Your task to perform on an android device: Open network settings Image 0: 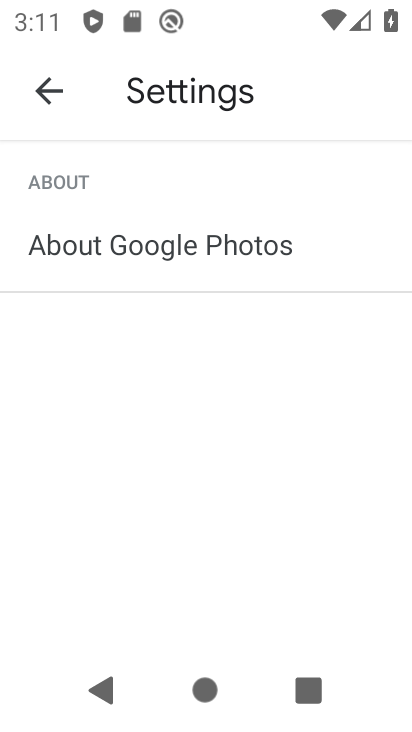
Step 0: press back button
Your task to perform on an android device: Open network settings Image 1: 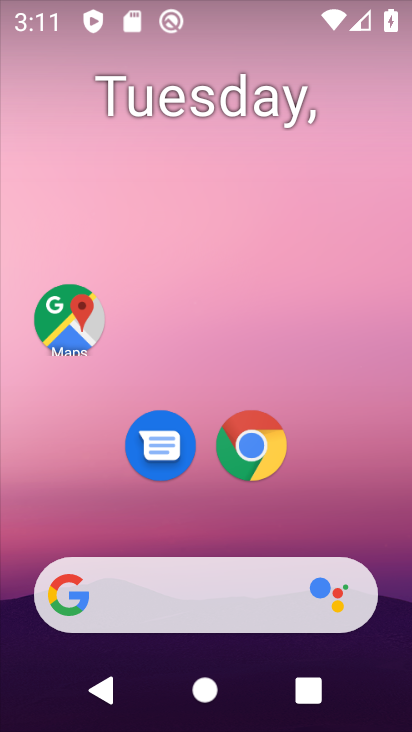
Step 1: drag from (298, 516) to (346, 93)
Your task to perform on an android device: Open network settings Image 2: 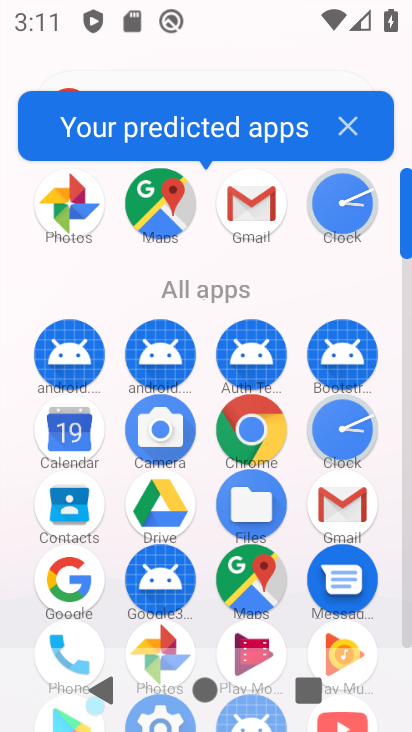
Step 2: drag from (300, 598) to (318, 224)
Your task to perform on an android device: Open network settings Image 3: 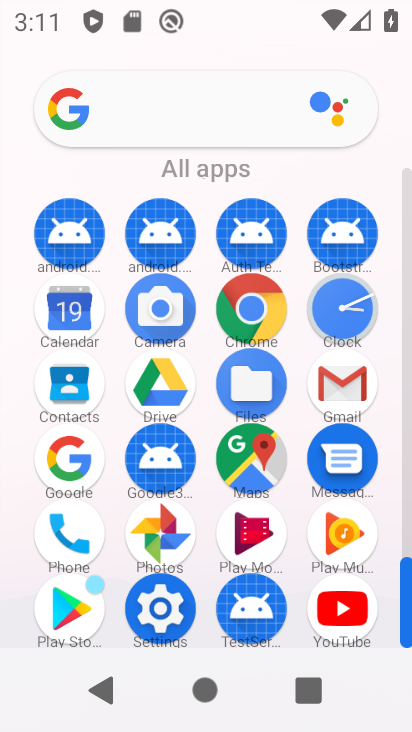
Step 3: click (165, 599)
Your task to perform on an android device: Open network settings Image 4: 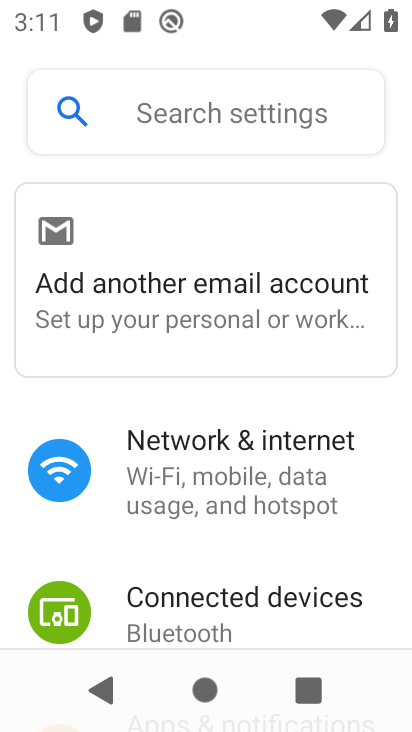
Step 4: click (266, 499)
Your task to perform on an android device: Open network settings Image 5: 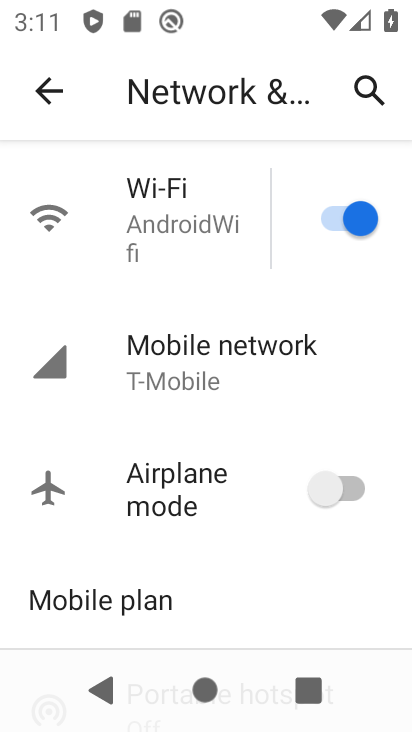
Step 5: task complete